Your task to perform on an android device: turn off notifications settings in the gmail app Image 0: 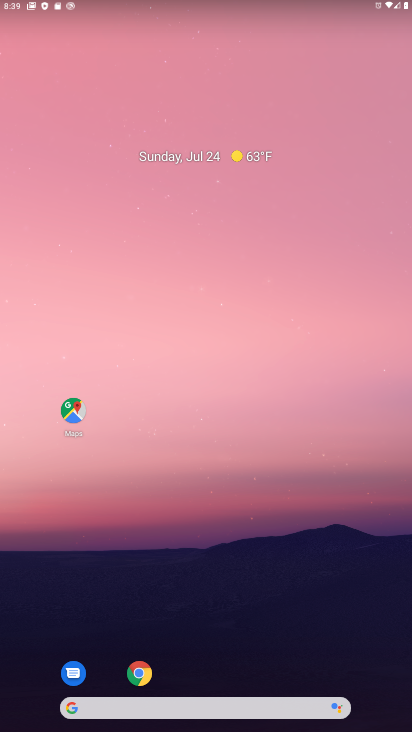
Step 0: drag from (238, 679) to (182, 103)
Your task to perform on an android device: turn off notifications settings in the gmail app Image 1: 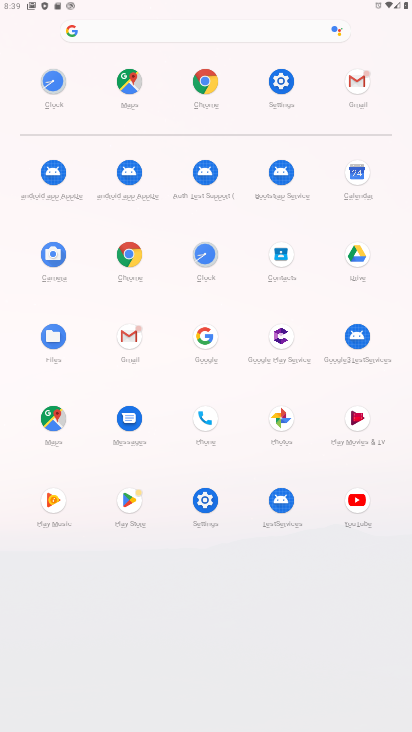
Step 1: click (134, 334)
Your task to perform on an android device: turn off notifications settings in the gmail app Image 2: 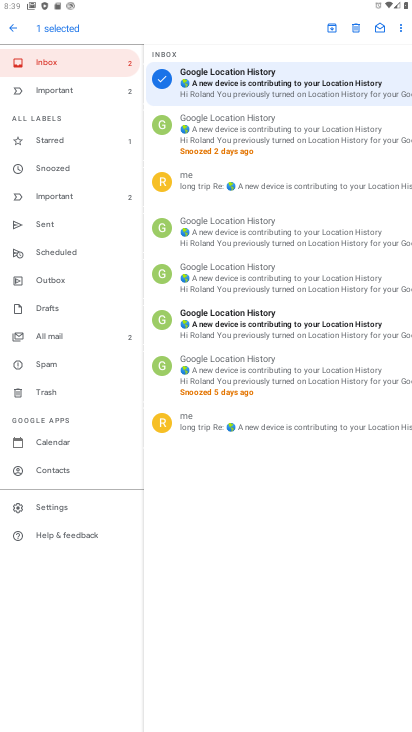
Step 2: click (66, 508)
Your task to perform on an android device: turn off notifications settings in the gmail app Image 3: 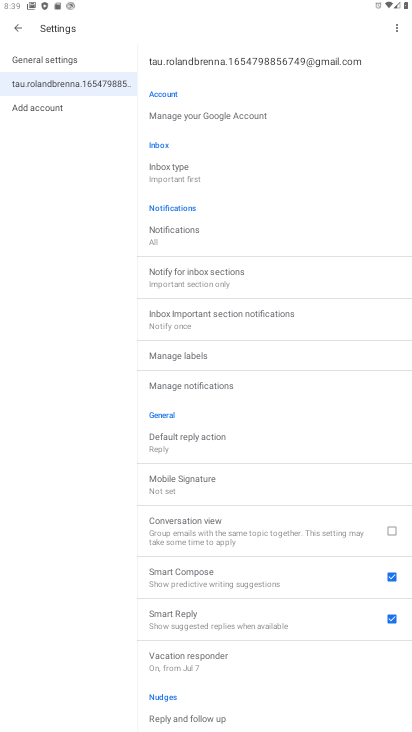
Step 3: drag from (324, 220) to (249, 304)
Your task to perform on an android device: turn off notifications settings in the gmail app Image 4: 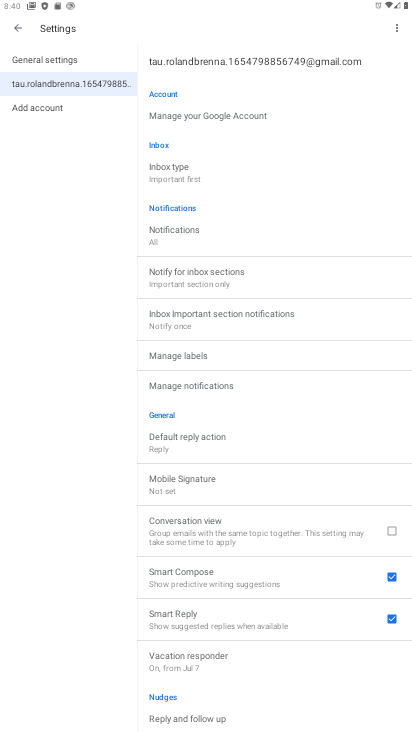
Step 4: click (26, 64)
Your task to perform on an android device: turn off notifications settings in the gmail app Image 5: 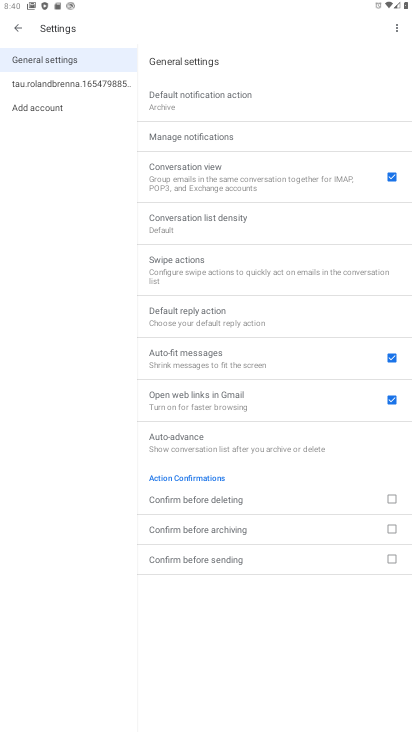
Step 5: click (195, 134)
Your task to perform on an android device: turn off notifications settings in the gmail app Image 6: 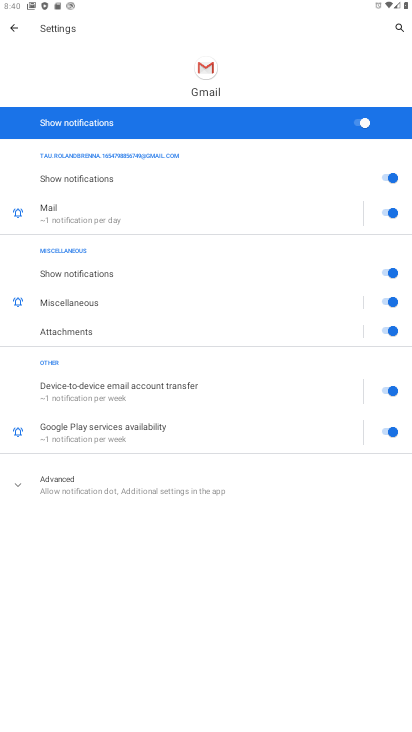
Step 6: click (352, 120)
Your task to perform on an android device: turn off notifications settings in the gmail app Image 7: 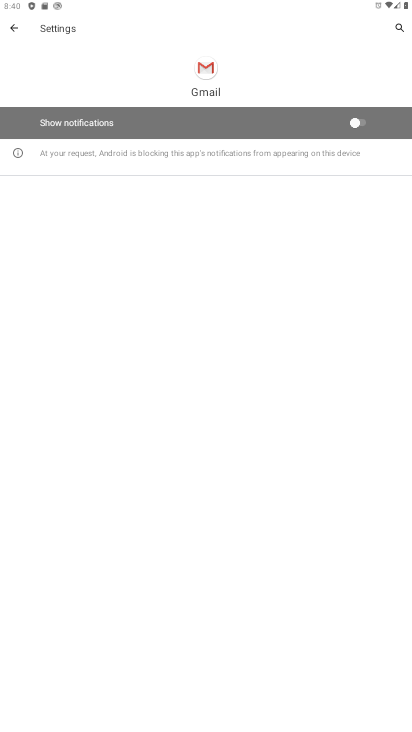
Step 7: task complete